Your task to perform on an android device: toggle notifications settings in the gmail app Image 0: 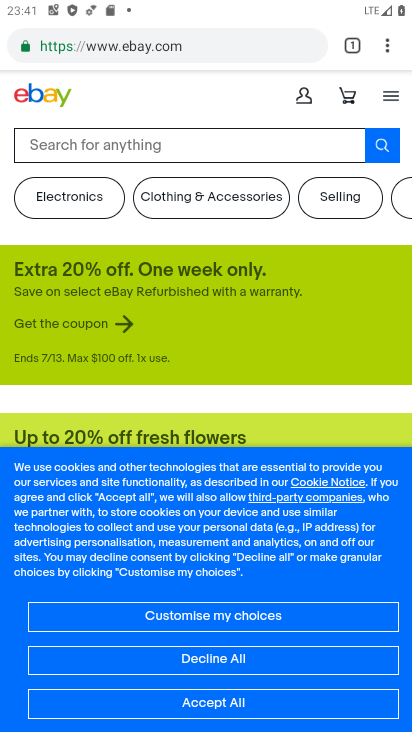
Step 0: press home button
Your task to perform on an android device: toggle notifications settings in the gmail app Image 1: 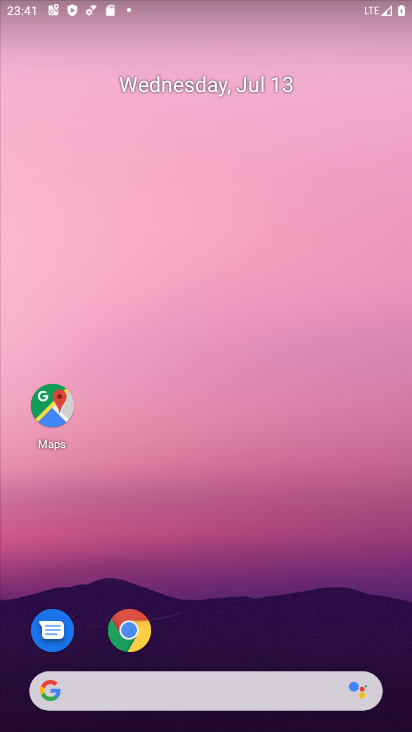
Step 1: drag from (302, 620) to (302, 127)
Your task to perform on an android device: toggle notifications settings in the gmail app Image 2: 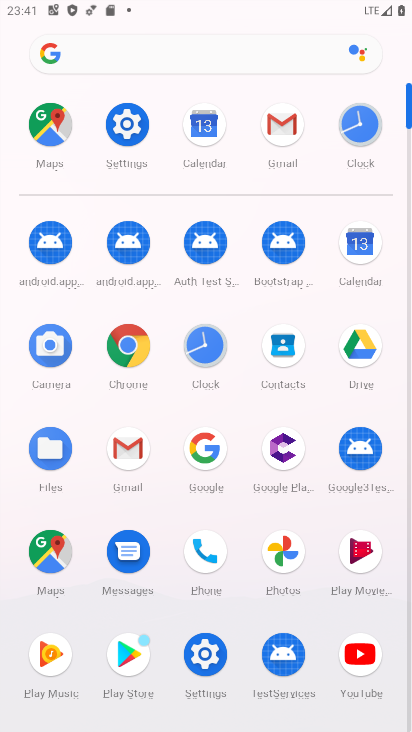
Step 2: click (126, 459)
Your task to perform on an android device: toggle notifications settings in the gmail app Image 3: 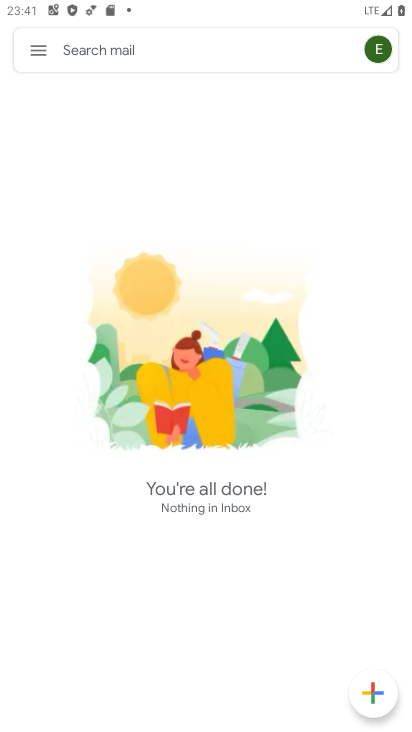
Step 3: click (43, 53)
Your task to perform on an android device: toggle notifications settings in the gmail app Image 4: 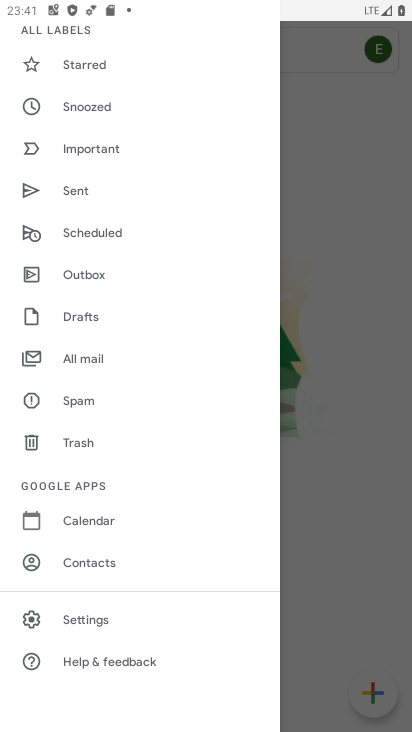
Step 4: drag from (155, 224) to (217, 557)
Your task to perform on an android device: toggle notifications settings in the gmail app Image 5: 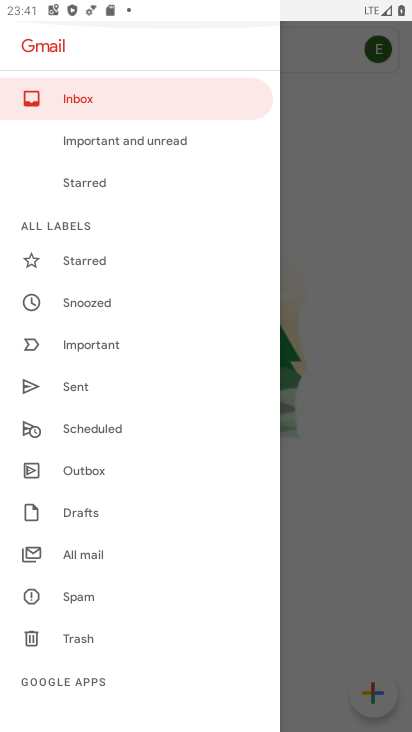
Step 5: drag from (214, 606) to (214, 419)
Your task to perform on an android device: toggle notifications settings in the gmail app Image 6: 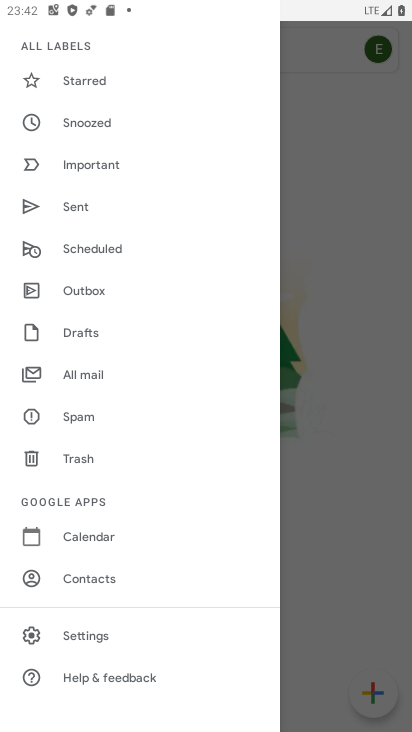
Step 6: click (97, 640)
Your task to perform on an android device: toggle notifications settings in the gmail app Image 7: 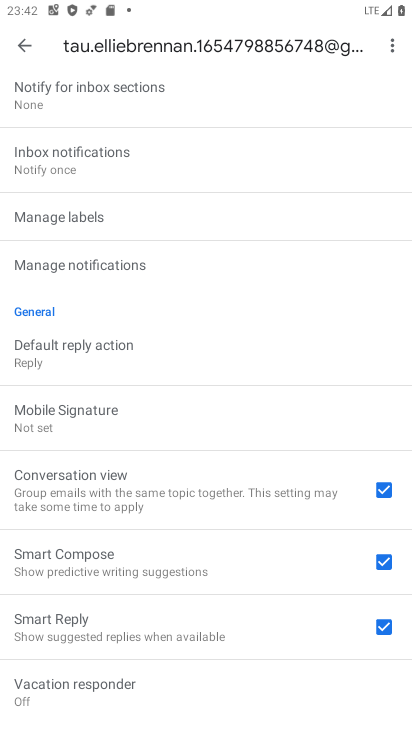
Step 7: drag from (230, 333) to (263, 529)
Your task to perform on an android device: toggle notifications settings in the gmail app Image 8: 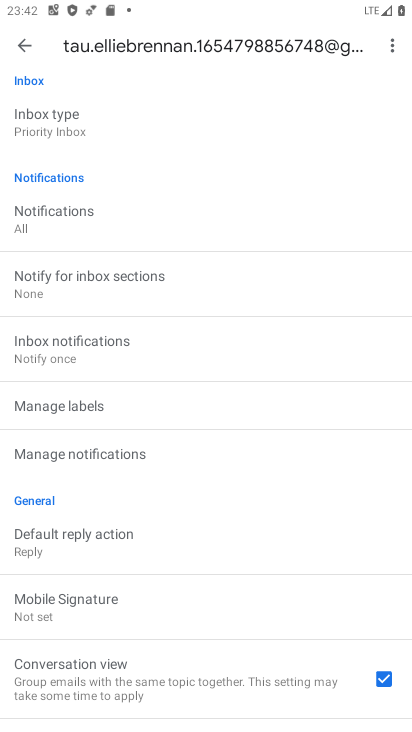
Step 8: drag from (256, 321) to (281, 469)
Your task to perform on an android device: toggle notifications settings in the gmail app Image 9: 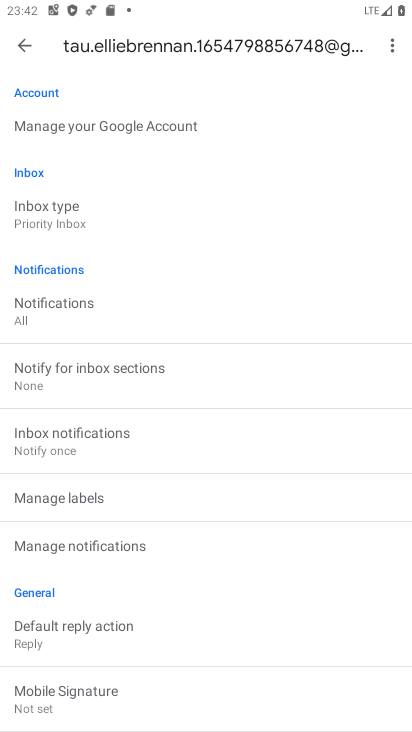
Step 9: drag from (282, 298) to (286, 446)
Your task to perform on an android device: toggle notifications settings in the gmail app Image 10: 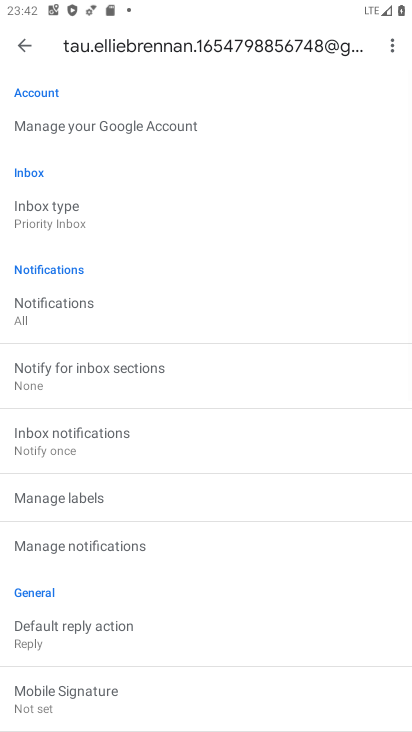
Step 10: drag from (277, 503) to (282, 415)
Your task to perform on an android device: toggle notifications settings in the gmail app Image 11: 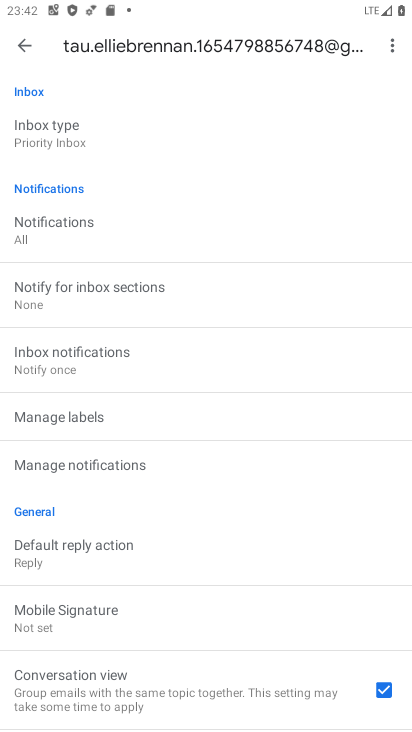
Step 11: drag from (280, 532) to (280, 405)
Your task to perform on an android device: toggle notifications settings in the gmail app Image 12: 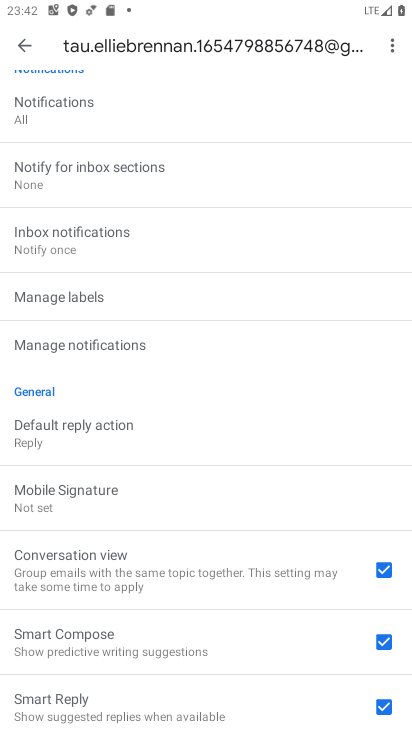
Step 12: drag from (282, 534) to (280, 445)
Your task to perform on an android device: toggle notifications settings in the gmail app Image 13: 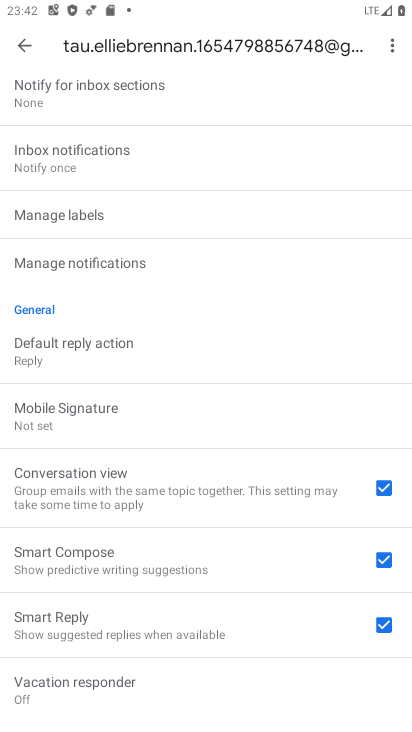
Step 13: click (168, 269)
Your task to perform on an android device: toggle notifications settings in the gmail app Image 14: 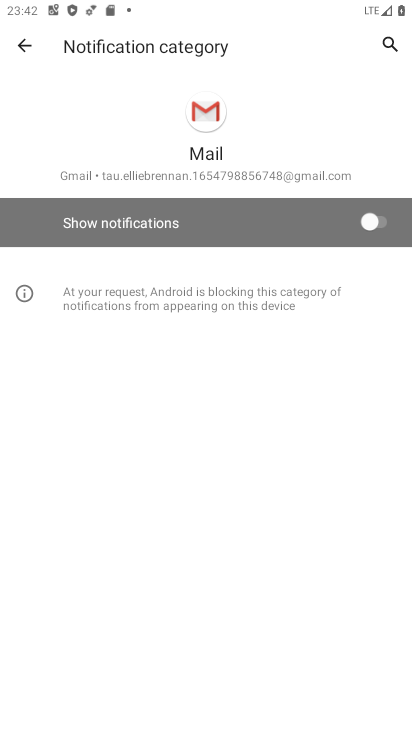
Step 14: click (365, 225)
Your task to perform on an android device: toggle notifications settings in the gmail app Image 15: 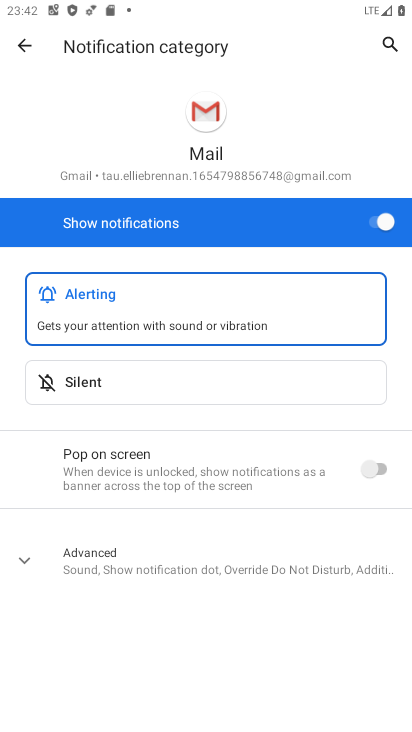
Step 15: task complete